Your task to perform on an android device: Open notification settings Image 0: 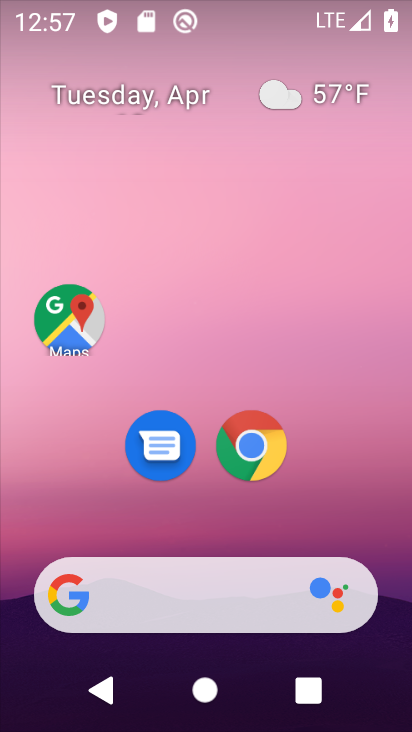
Step 0: drag from (343, 512) to (369, 66)
Your task to perform on an android device: Open notification settings Image 1: 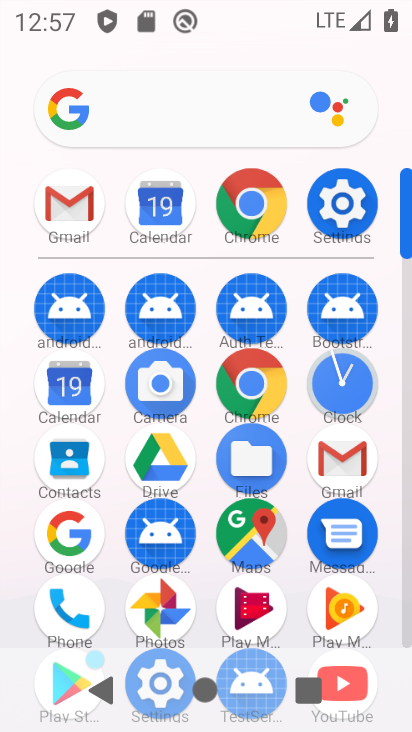
Step 1: click (341, 217)
Your task to perform on an android device: Open notification settings Image 2: 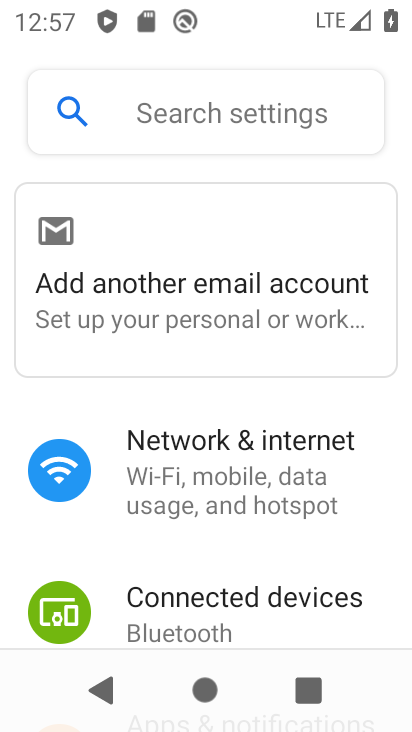
Step 2: drag from (271, 414) to (215, 619)
Your task to perform on an android device: Open notification settings Image 3: 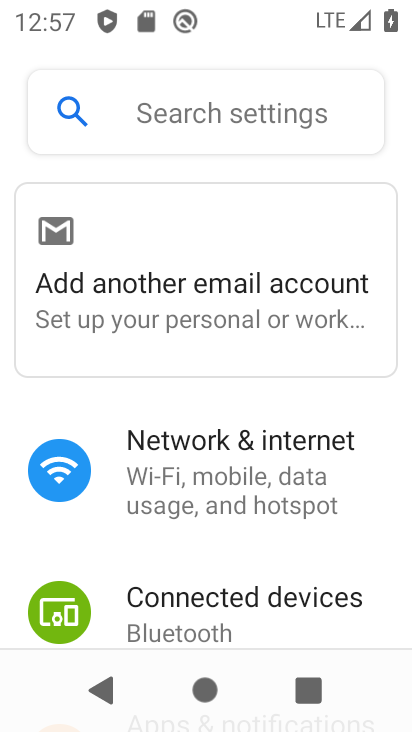
Step 3: drag from (241, 557) to (307, 279)
Your task to perform on an android device: Open notification settings Image 4: 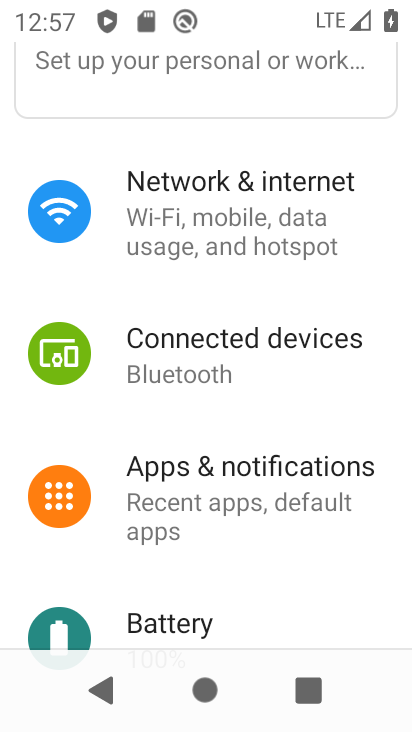
Step 4: click (234, 493)
Your task to perform on an android device: Open notification settings Image 5: 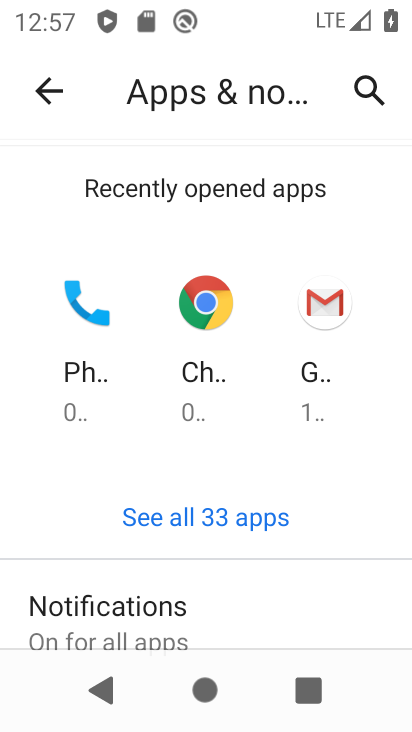
Step 5: task complete